Your task to perform on an android device: Open settings Image 0: 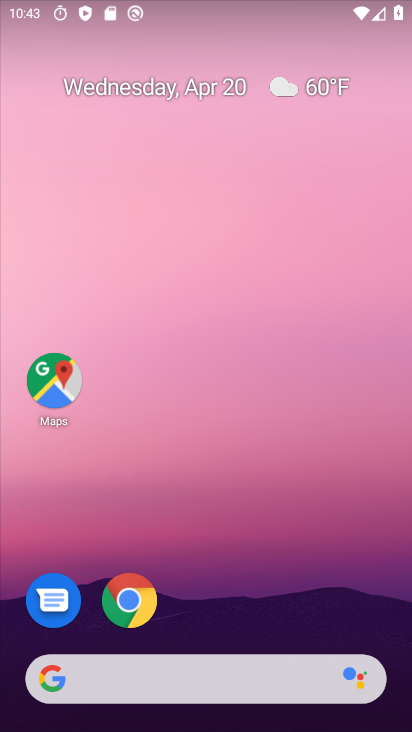
Step 0: drag from (296, 10) to (227, 540)
Your task to perform on an android device: Open settings Image 1: 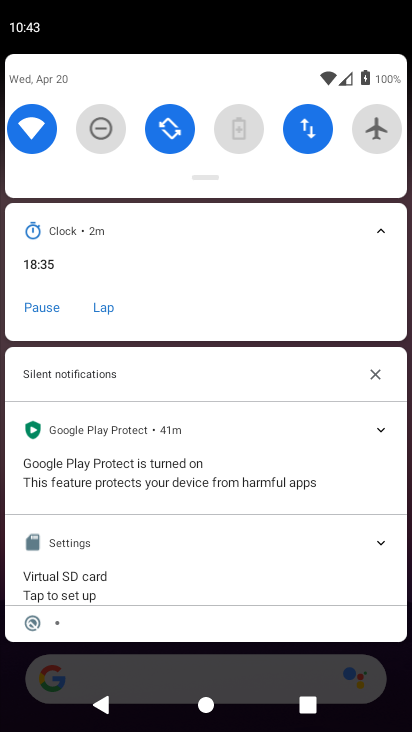
Step 1: drag from (218, 78) to (135, 587)
Your task to perform on an android device: Open settings Image 2: 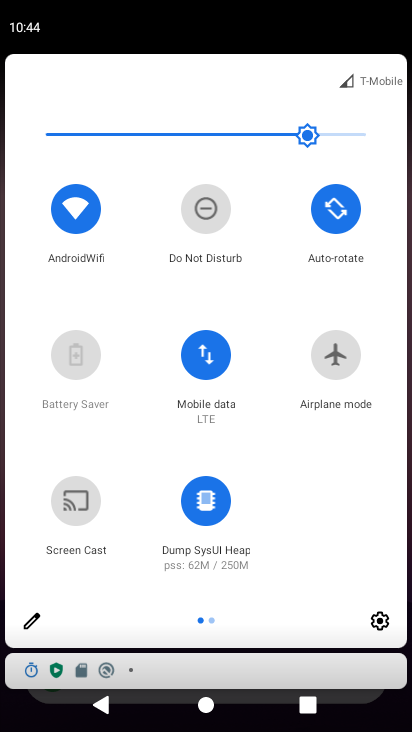
Step 2: click (371, 624)
Your task to perform on an android device: Open settings Image 3: 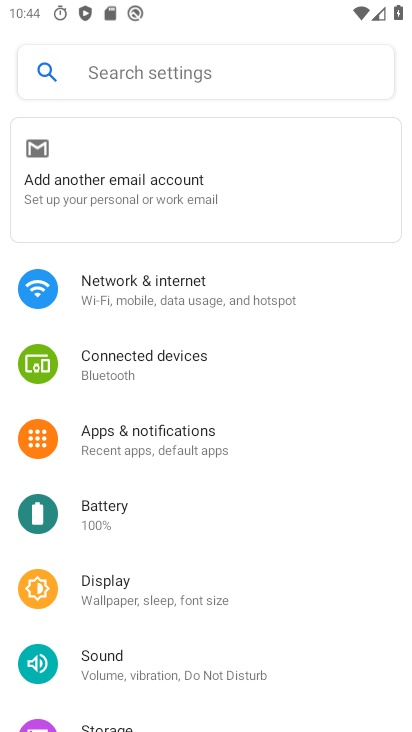
Step 3: task complete